Your task to perform on an android device: allow notifications from all sites in the chrome app Image 0: 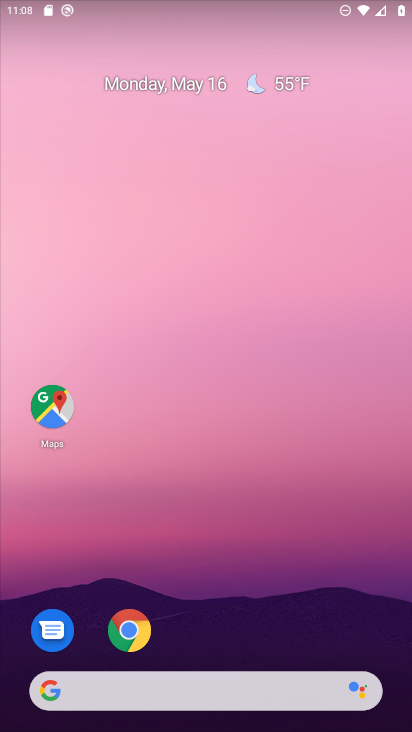
Step 0: click (133, 633)
Your task to perform on an android device: allow notifications from all sites in the chrome app Image 1: 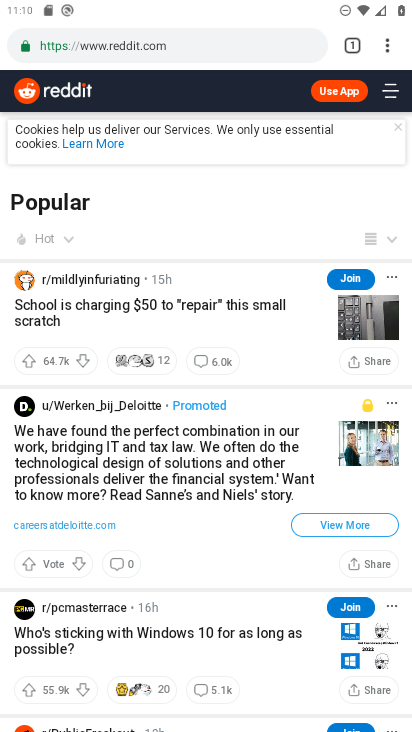
Step 1: press home button
Your task to perform on an android device: allow notifications from all sites in the chrome app Image 2: 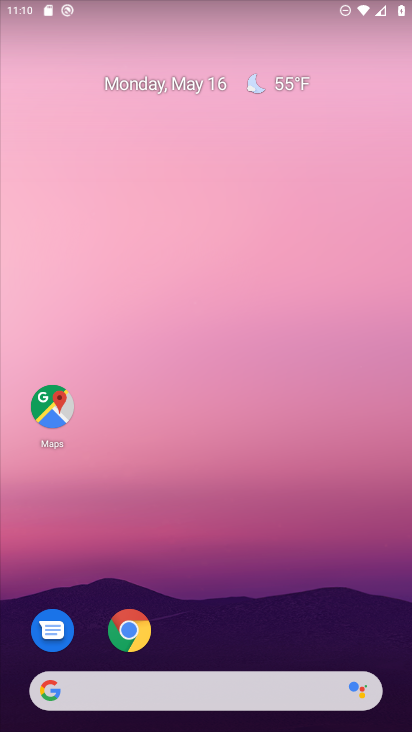
Step 2: click (131, 626)
Your task to perform on an android device: allow notifications from all sites in the chrome app Image 3: 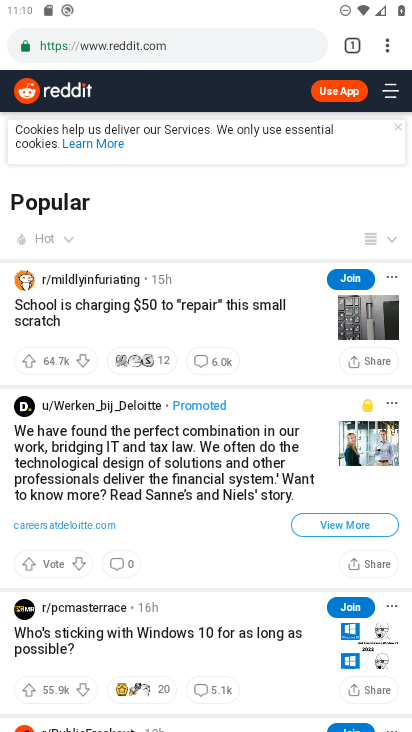
Step 3: drag from (389, 50) to (224, 493)
Your task to perform on an android device: allow notifications from all sites in the chrome app Image 4: 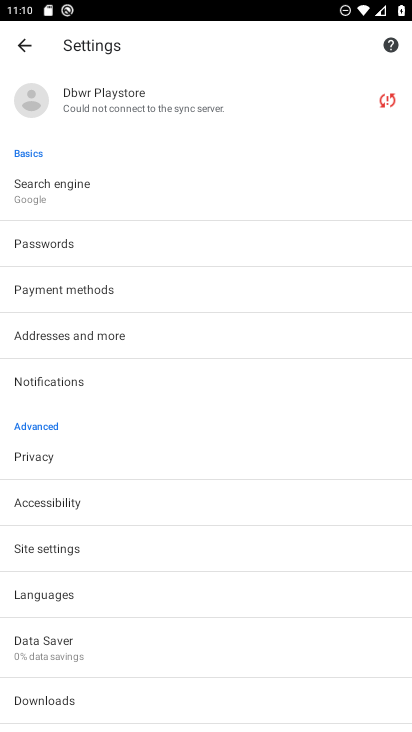
Step 4: click (55, 545)
Your task to perform on an android device: allow notifications from all sites in the chrome app Image 5: 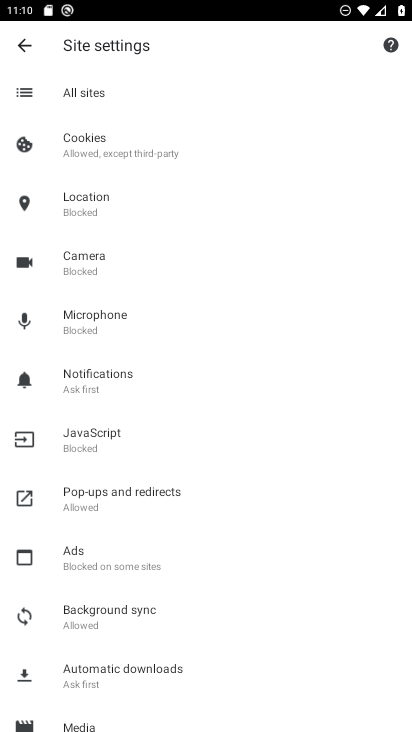
Step 5: click (160, 99)
Your task to perform on an android device: allow notifications from all sites in the chrome app Image 6: 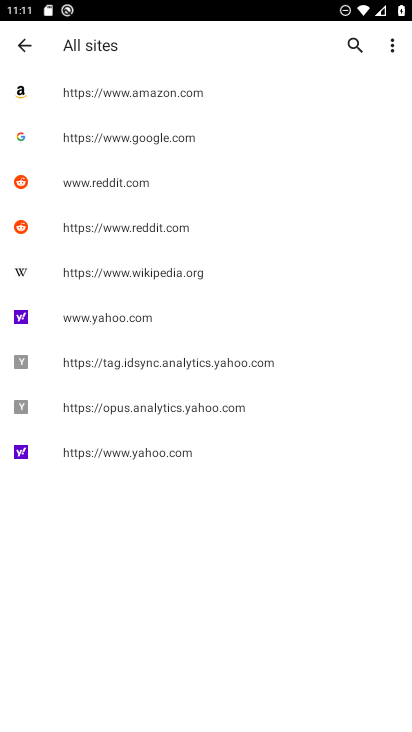
Step 6: click (172, 141)
Your task to perform on an android device: allow notifications from all sites in the chrome app Image 7: 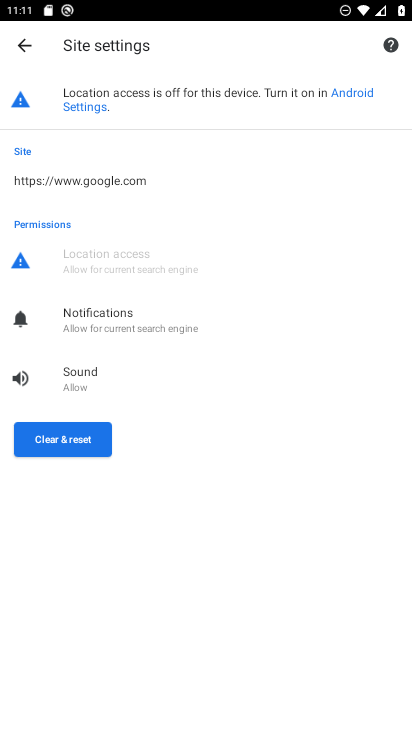
Step 7: click (182, 335)
Your task to perform on an android device: allow notifications from all sites in the chrome app Image 8: 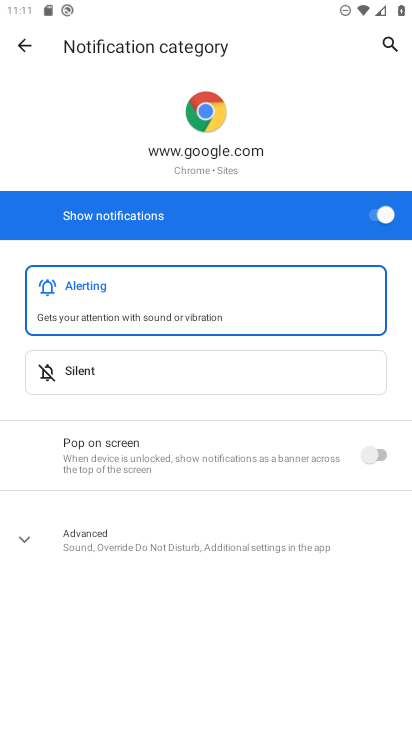
Step 8: task complete